Your task to perform on an android device: install app "YouTube Kids" Image 0: 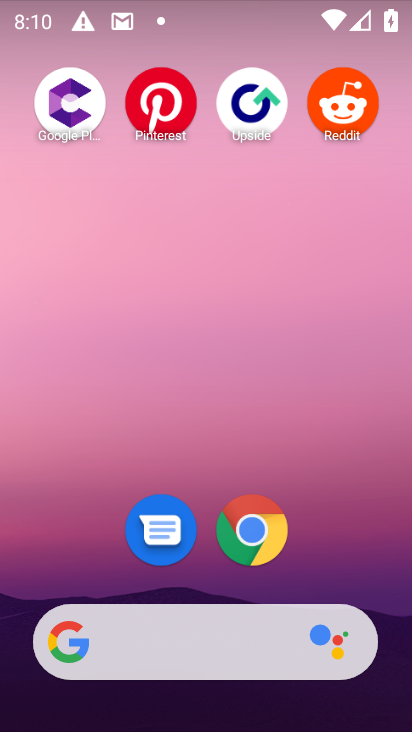
Step 0: drag from (153, 711) to (165, 409)
Your task to perform on an android device: install app "YouTube Kids" Image 1: 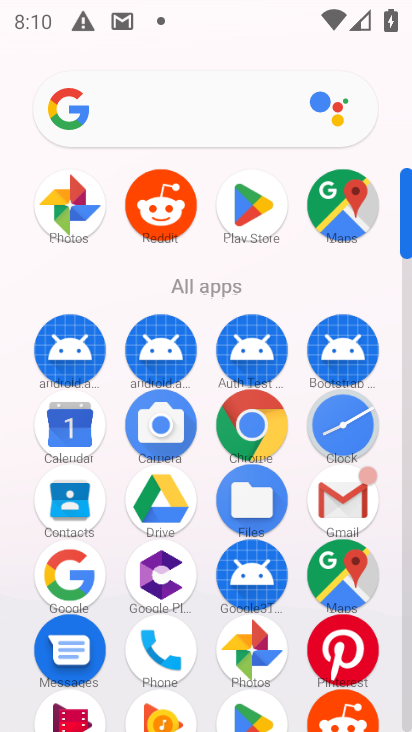
Step 1: click (275, 207)
Your task to perform on an android device: install app "YouTube Kids" Image 2: 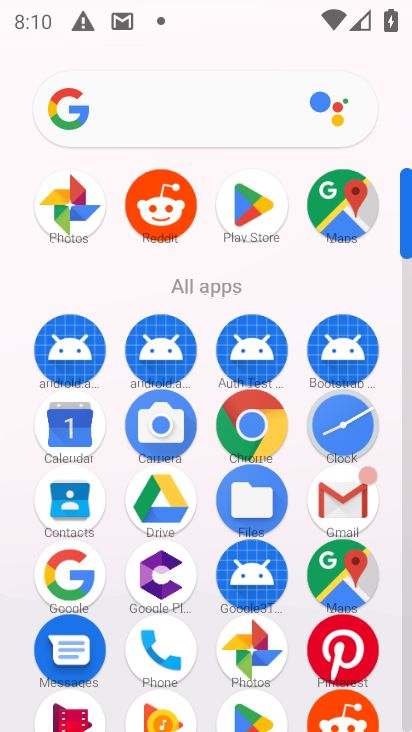
Step 2: click (275, 207)
Your task to perform on an android device: install app "YouTube Kids" Image 3: 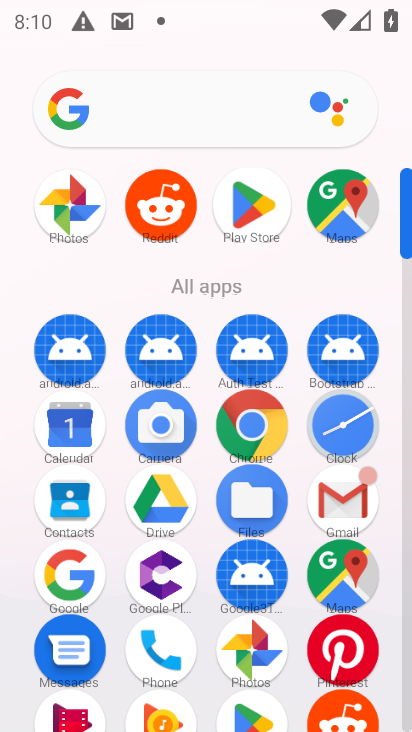
Step 3: click (275, 207)
Your task to perform on an android device: install app "YouTube Kids" Image 4: 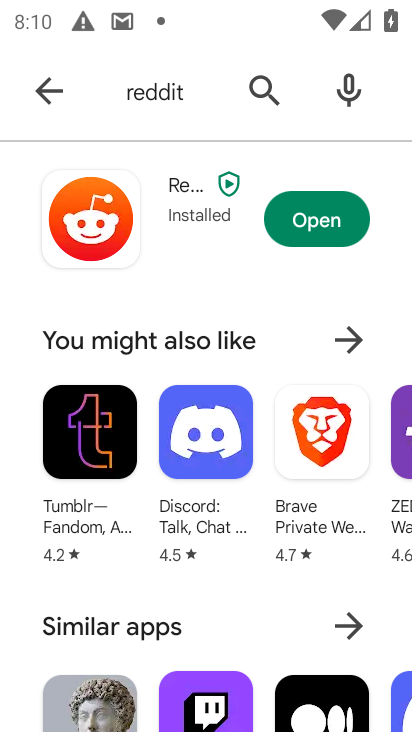
Step 4: click (270, 94)
Your task to perform on an android device: install app "YouTube Kids" Image 5: 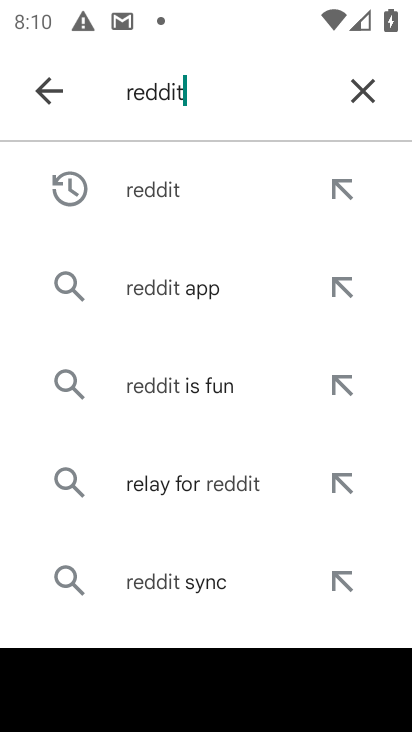
Step 5: click (365, 90)
Your task to perform on an android device: install app "YouTube Kids" Image 6: 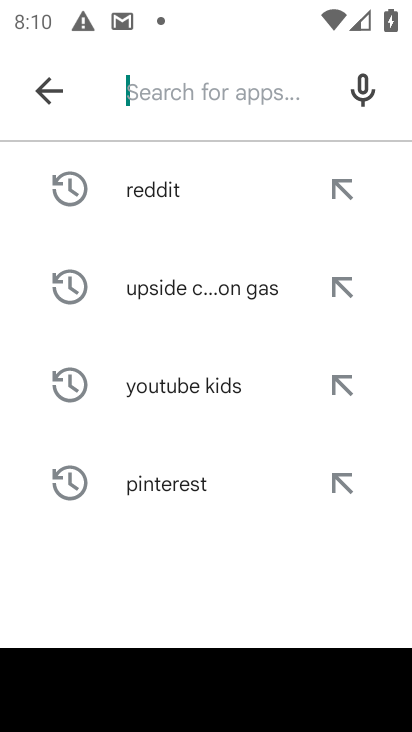
Step 6: click (151, 398)
Your task to perform on an android device: install app "YouTube Kids" Image 7: 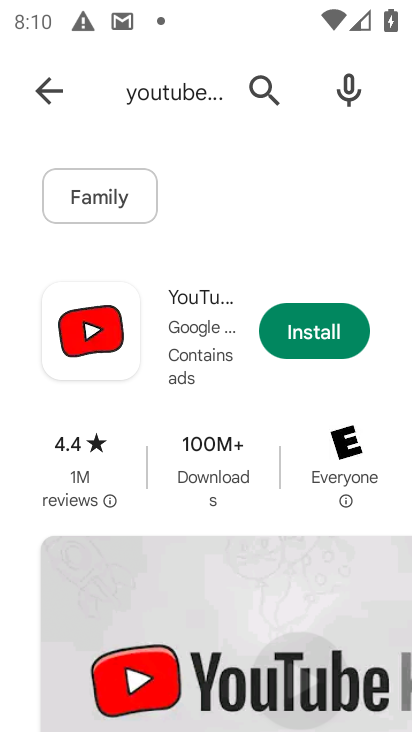
Step 7: click (337, 349)
Your task to perform on an android device: install app "YouTube Kids" Image 8: 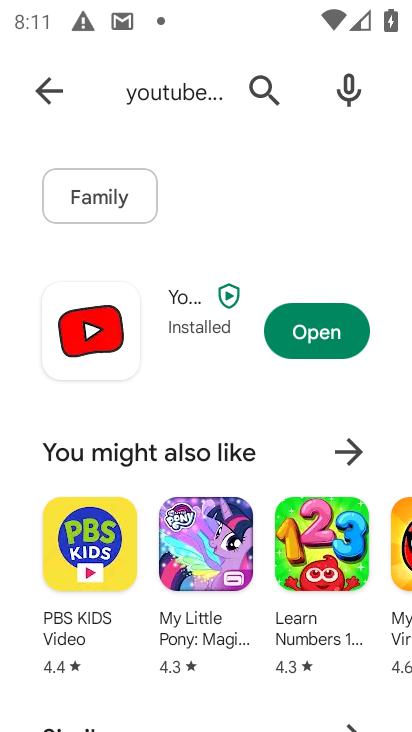
Step 8: task complete